Your task to perform on an android device: Open the calendar and show me this week's events Image 0: 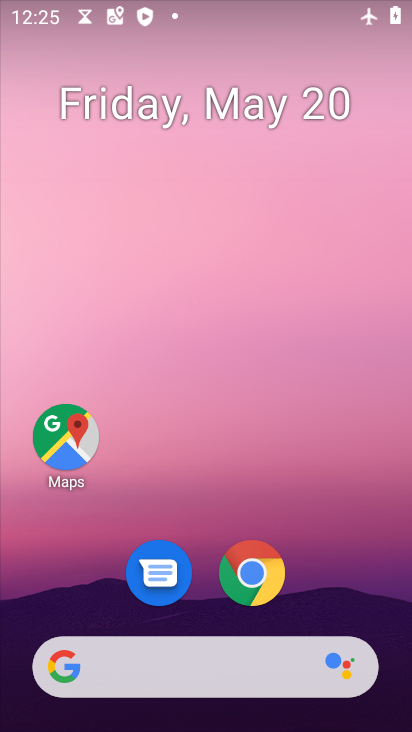
Step 0: drag from (322, 591) to (282, 33)
Your task to perform on an android device: Open the calendar and show me this week's events Image 1: 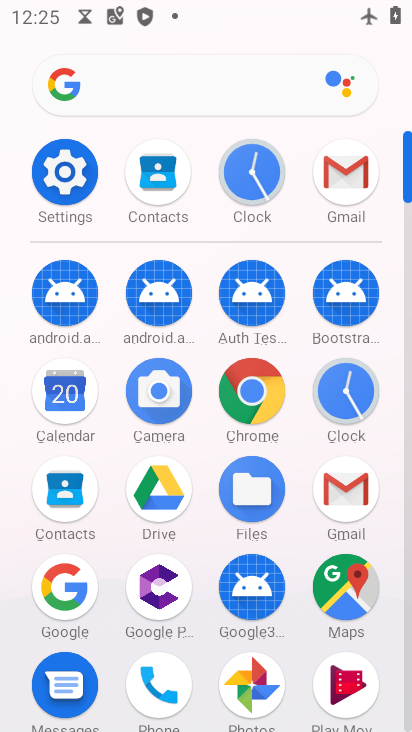
Step 1: click (60, 396)
Your task to perform on an android device: Open the calendar and show me this week's events Image 2: 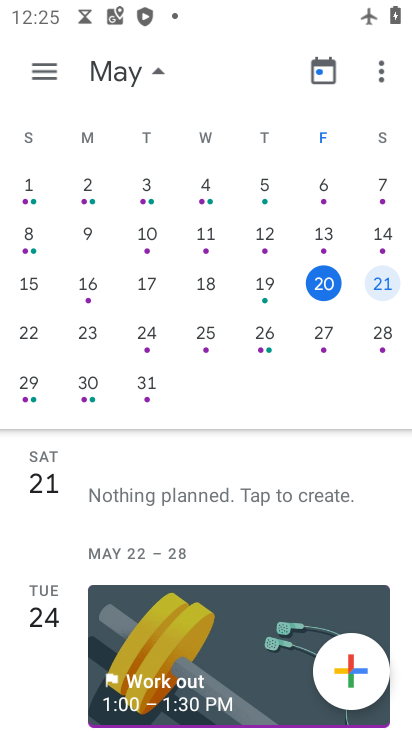
Step 2: click (322, 292)
Your task to perform on an android device: Open the calendar and show me this week's events Image 3: 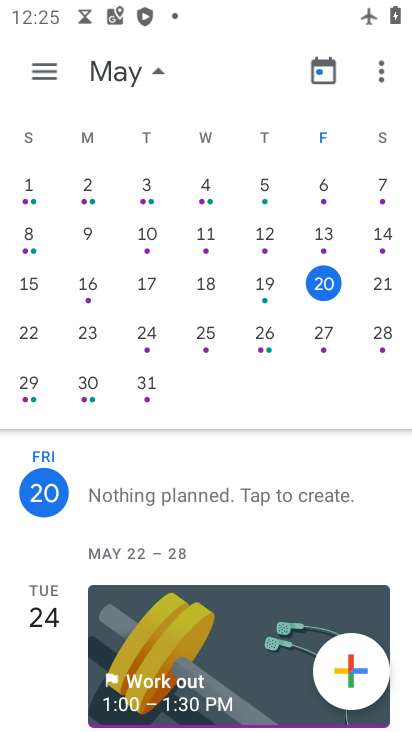
Step 3: task complete